Your task to perform on an android device: turn pop-ups on in chrome Image 0: 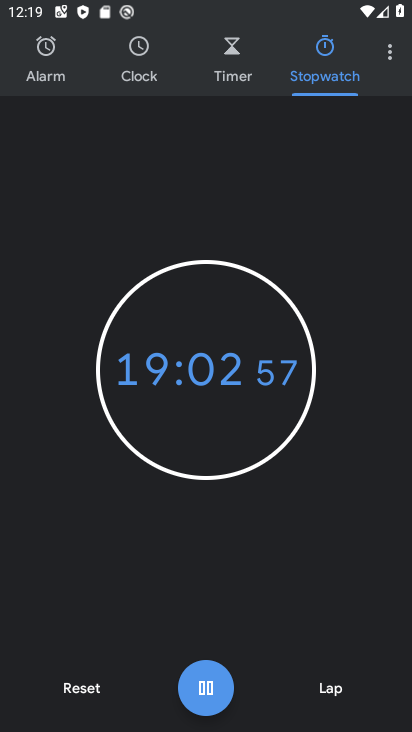
Step 0: press home button
Your task to perform on an android device: turn pop-ups on in chrome Image 1: 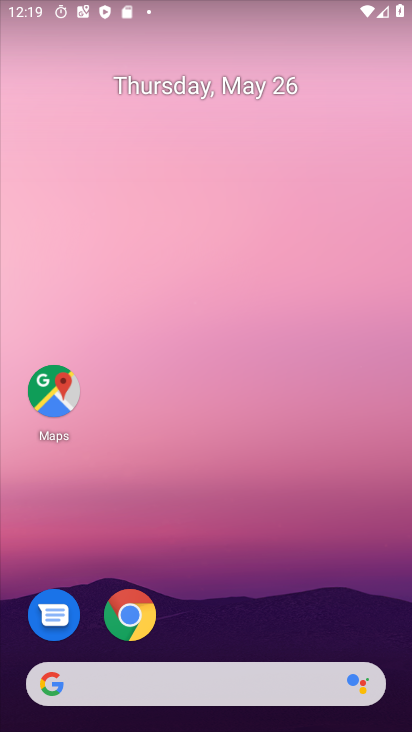
Step 1: click (144, 611)
Your task to perform on an android device: turn pop-ups on in chrome Image 2: 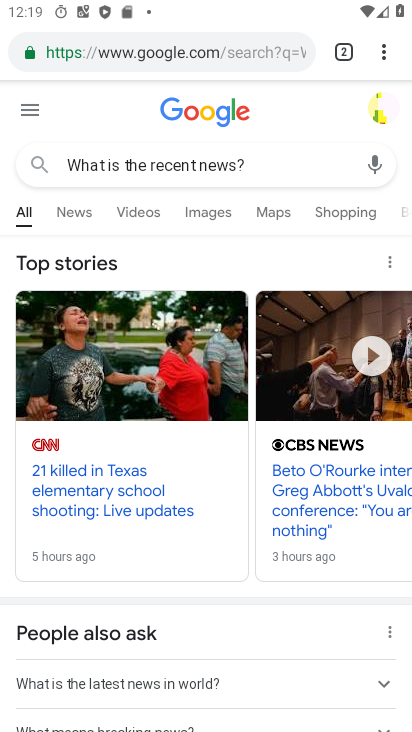
Step 2: click (380, 58)
Your task to perform on an android device: turn pop-ups on in chrome Image 3: 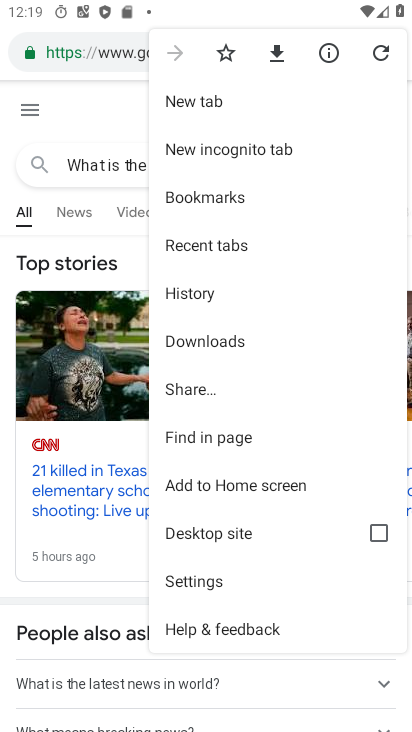
Step 3: click (272, 583)
Your task to perform on an android device: turn pop-ups on in chrome Image 4: 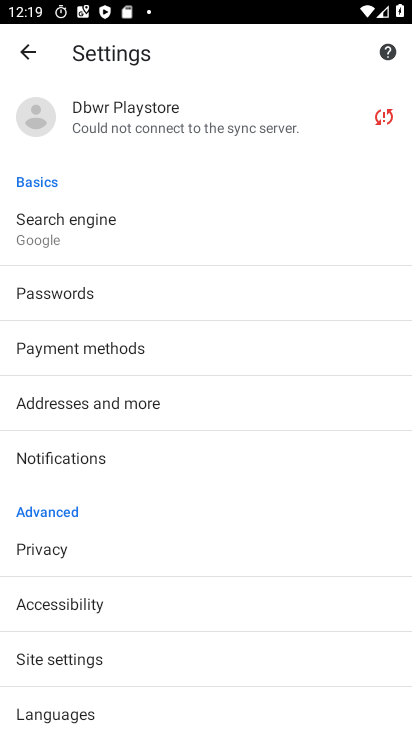
Step 4: click (263, 658)
Your task to perform on an android device: turn pop-ups on in chrome Image 5: 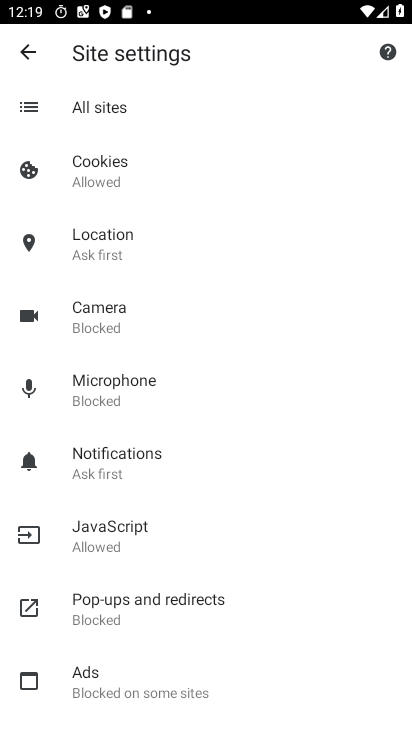
Step 5: click (251, 621)
Your task to perform on an android device: turn pop-ups on in chrome Image 6: 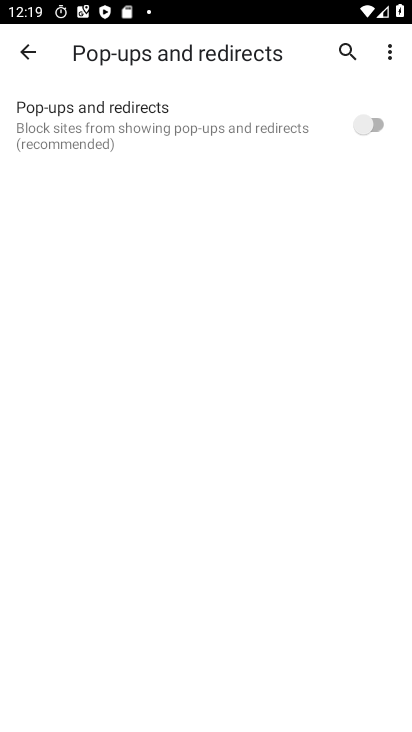
Step 6: click (381, 132)
Your task to perform on an android device: turn pop-ups on in chrome Image 7: 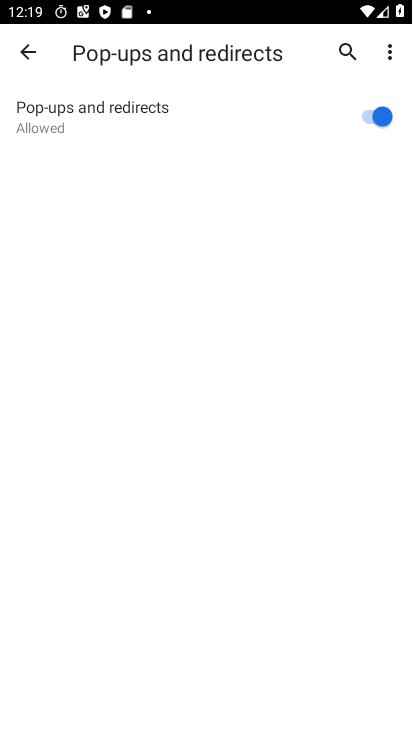
Step 7: task complete